Your task to perform on an android device: Open location settings Image 0: 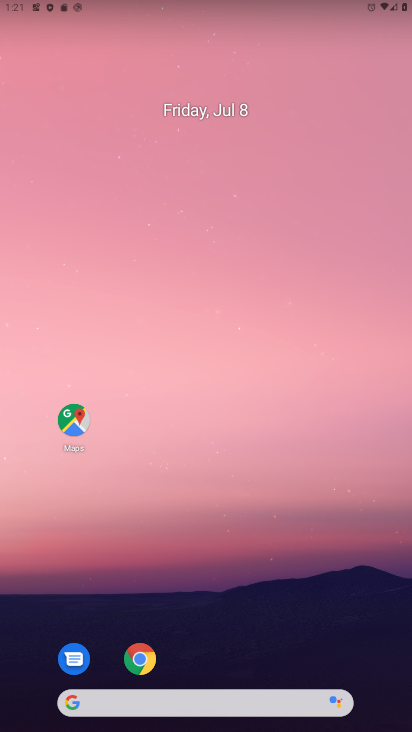
Step 0: drag from (262, 637) to (163, 107)
Your task to perform on an android device: Open location settings Image 1: 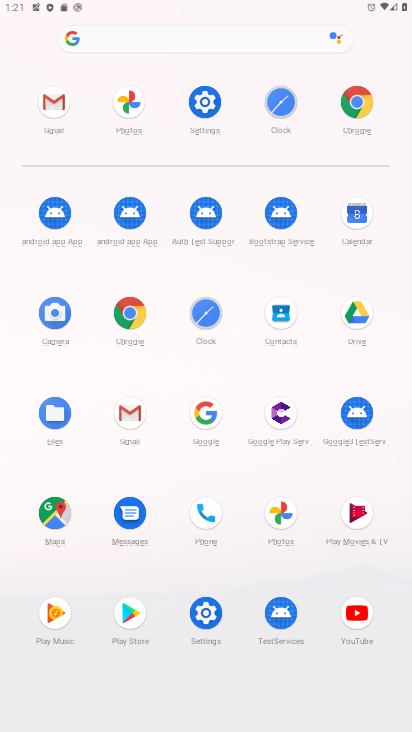
Step 1: click (202, 101)
Your task to perform on an android device: Open location settings Image 2: 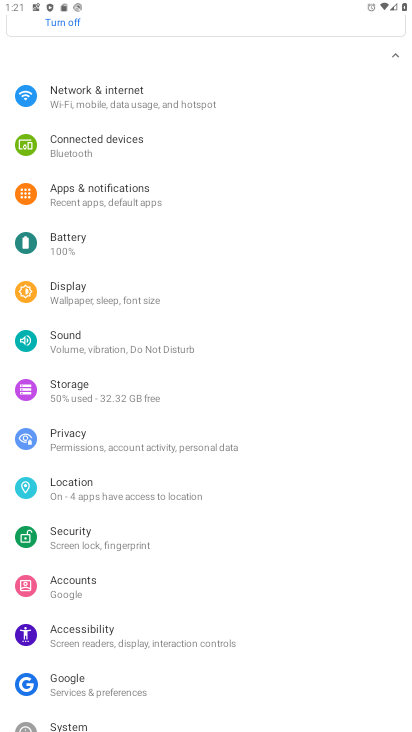
Step 2: click (70, 481)
Your task to perform on an android device: Open location settings Image 3: 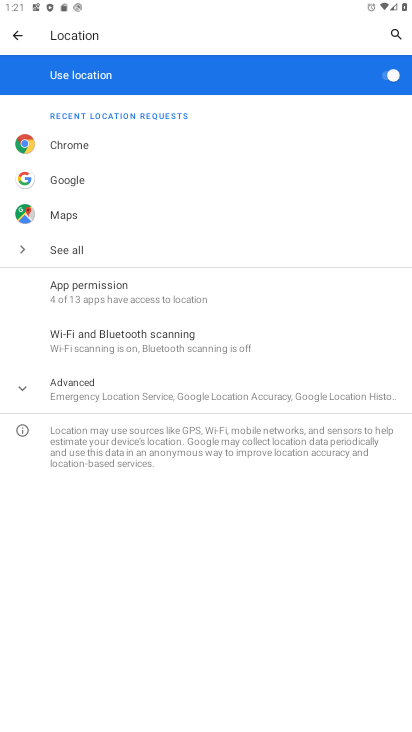
Step 3: task complete